Your task to perform on an android device: open device folders in google photos Image 0: 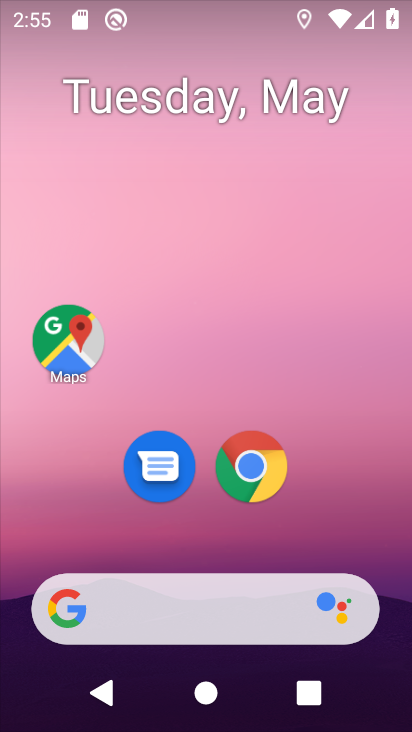
Step 0: drag from (328, 517) to (291, 142)
Your task to perform on an android device: open device folders in google photos Image 1: 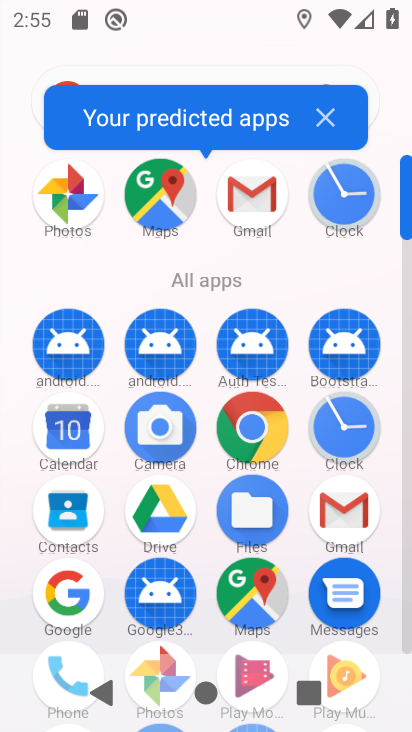
Step 1: drag from (305, 536) to (266, 187)
Your task to perform on an android device: open device folders in google photos Image 2: 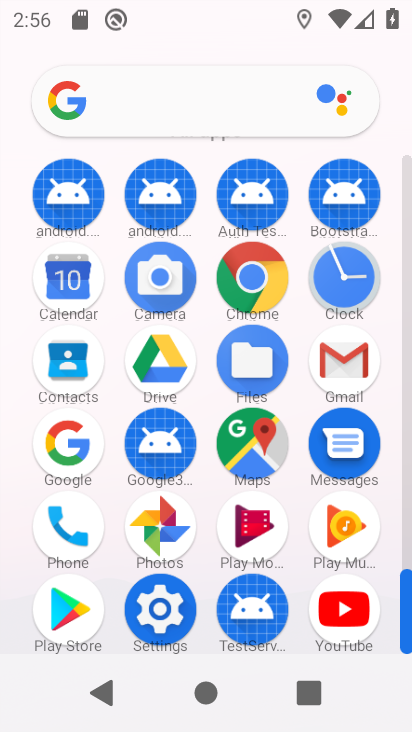
Step 2: click (260, 438)
Your task to perform on an android device: open device folders in google photos Image 3: 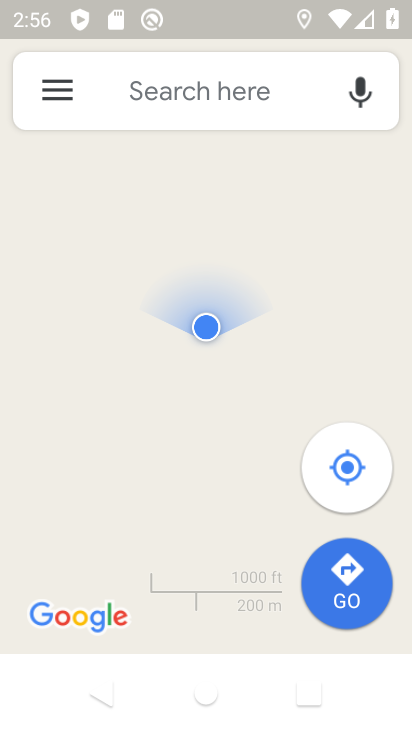
Step 3: press home button
Your task to perform on an android device: open device folders in google photos Image 4: 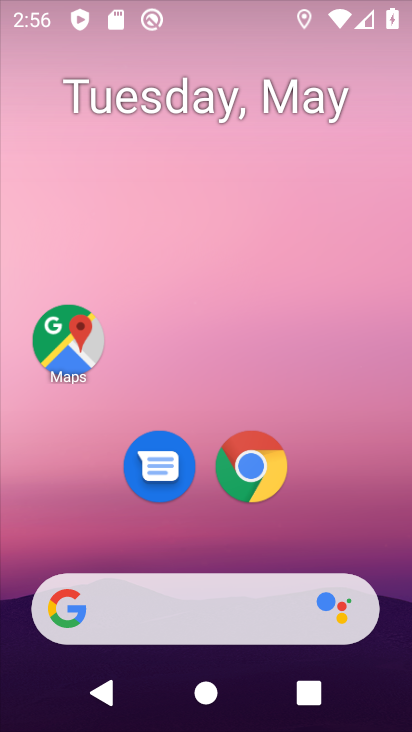
Step 4: drag from (248, 512) to (282, 196)
Your task to perform on an android device: open device folders in google photos Image 5: 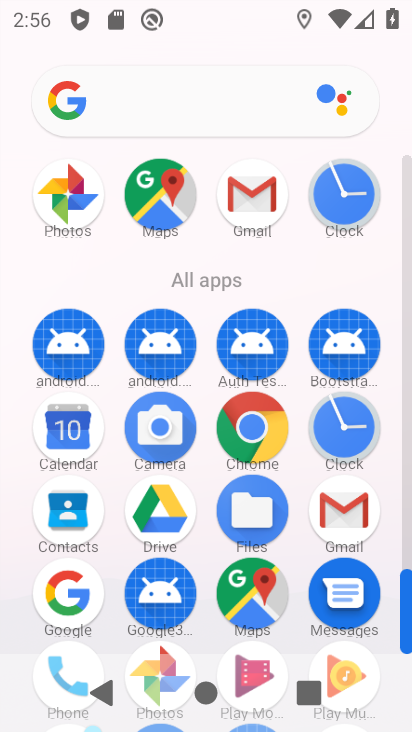
Step 5: click (166, 651)
Your task to perform on an android device: open device folders in google photos Image 6: 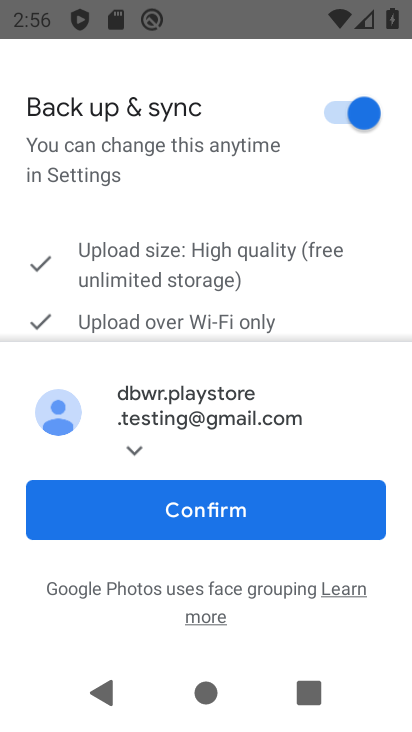
Step 6: click (179, 491)
Your task to perform on an android device: open device folders in google photos Image 7: 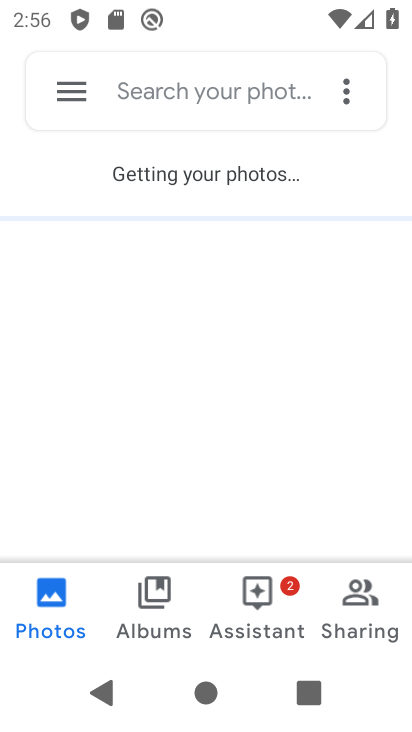
Step 7: click (161, 593)
Your task to perform on an android device: open device folders in google photos Image 8: 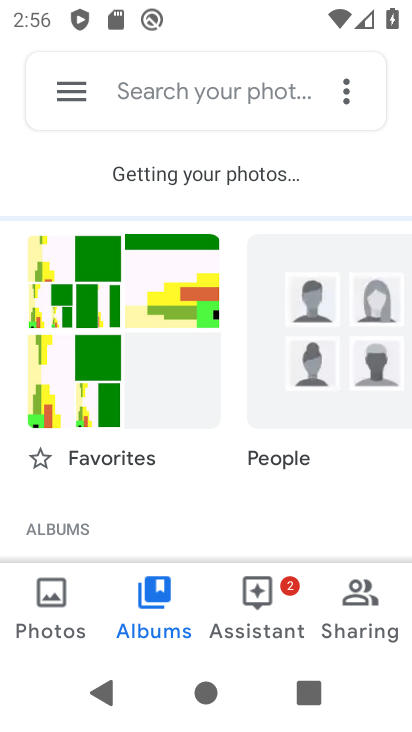
Step 8: click (71, 277)
Your task to perform on an android device: open device folders in google photos Image 9: 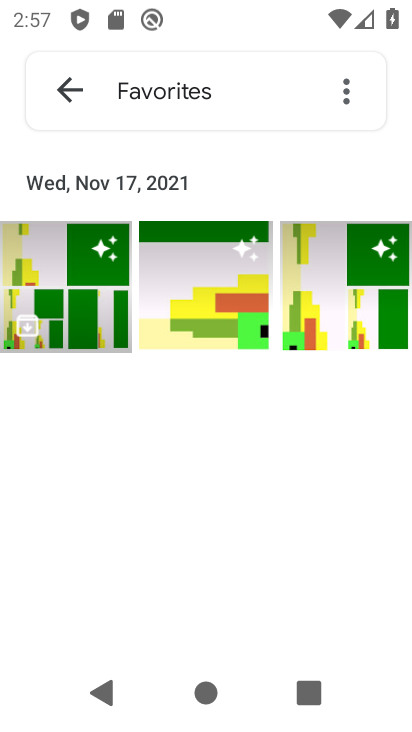
Step 9: task complete